Your task to perform on an android device: open chrome and create a bookmark for the current page Image 0: 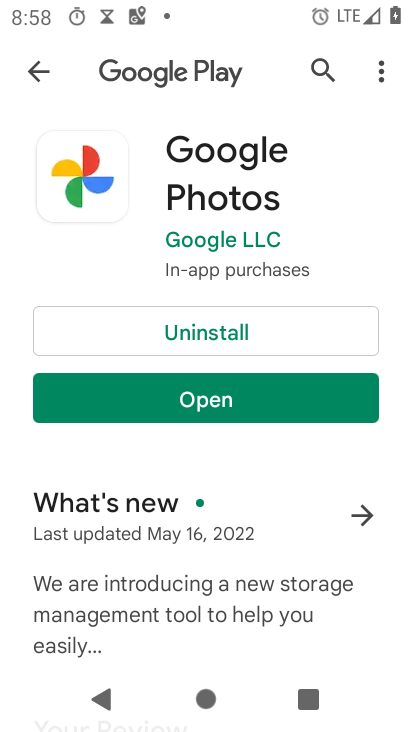
Step 0: press home button
Your task to perform on an android device: open chrome and create a bookmark for the current page Image 1: 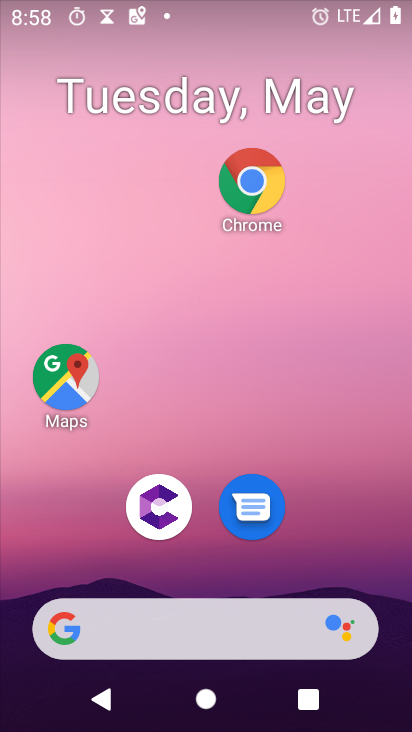
Step 1: click (269, 190)
Your task to perform on an android device: open chrome and create a bookmark for the current page Image 2: 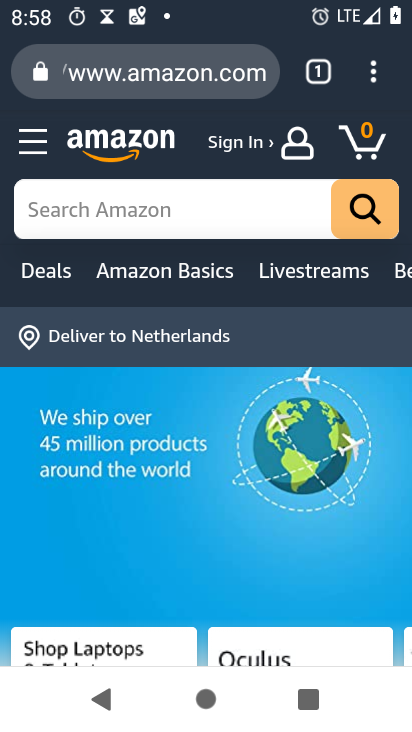
Step 2: click (366, 67)
Your task to perform on an android device: open chrome and create a bookmark for the current page Image 3: 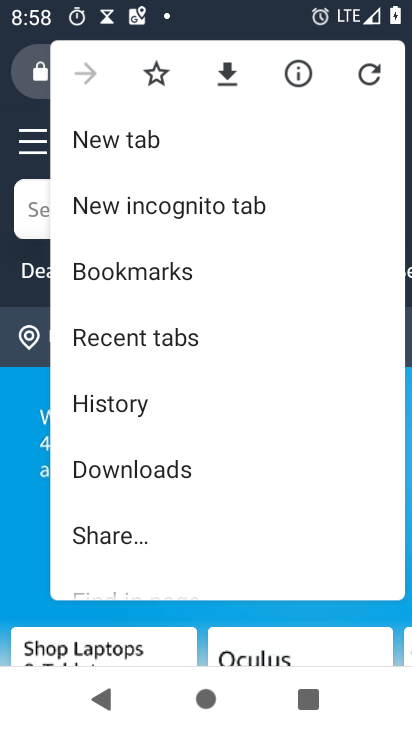
Step 3: click (141, 83)
Your task to perform on an android device: open chrome and create a bookmark for the current page Image 4: 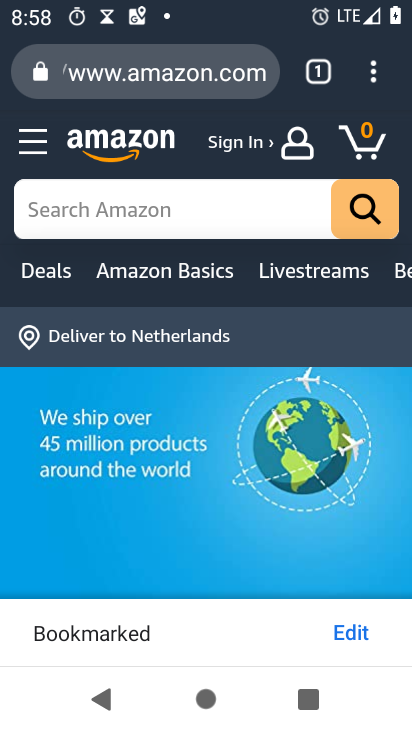
Step 4: task complete